Your task to perform on an android device: toggle priority inbox in the gmail app Image 0: 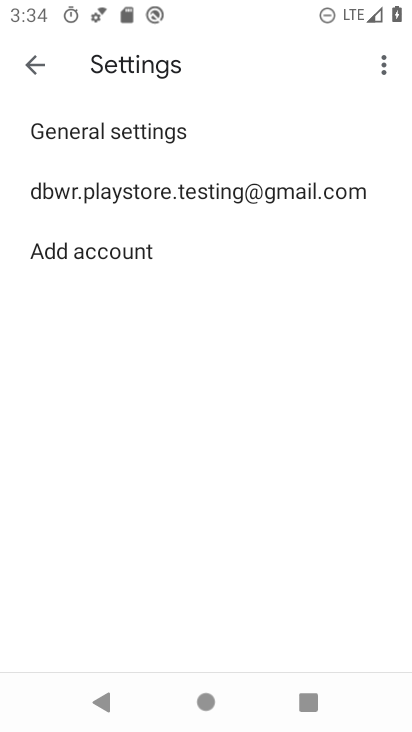
Step 0: press home button
Your task to perform on an android device: toggle priority inbox in the gmail app Image 1: 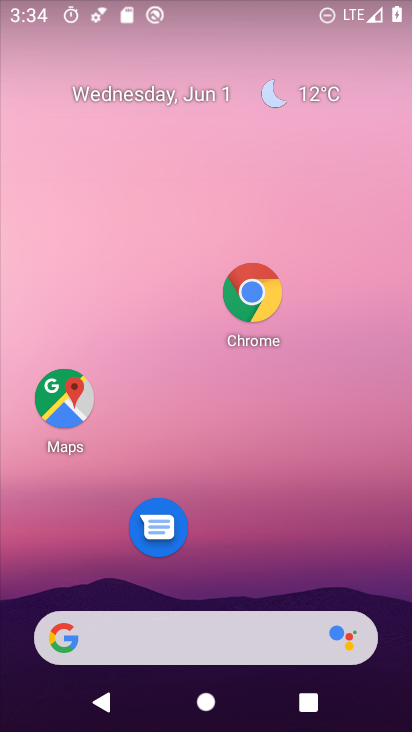
Step 1: drag from (221, 609) to (214, 381)
Your task to perform on an android device: toggle priority inbox in the gmail app Image 2: 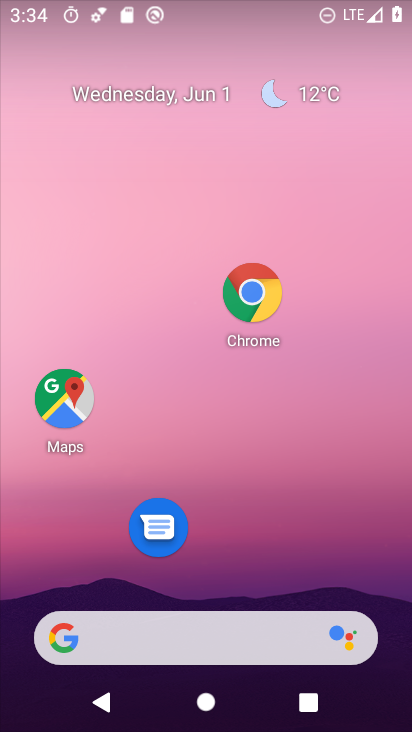
Step 2: drag from (215, 600) to (208, 364)
Your task to perform on an android device: toggle priority inbox in the gmail app Image 3: 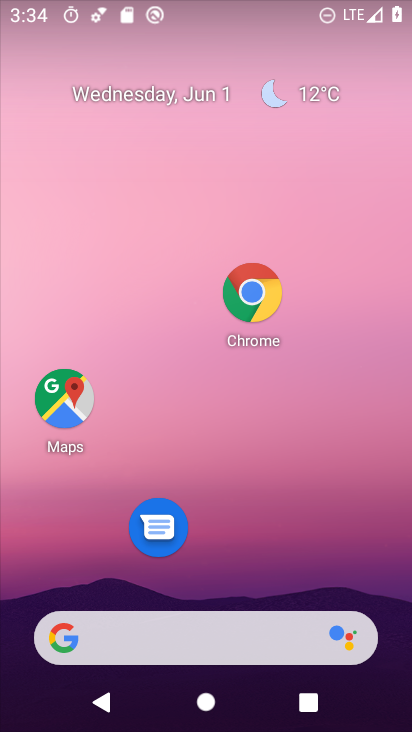
Step 3: drag from (243, 589) to (233, 366)
Your task to perform on an android device: toggle priority inbox in the gmail app Image 4: 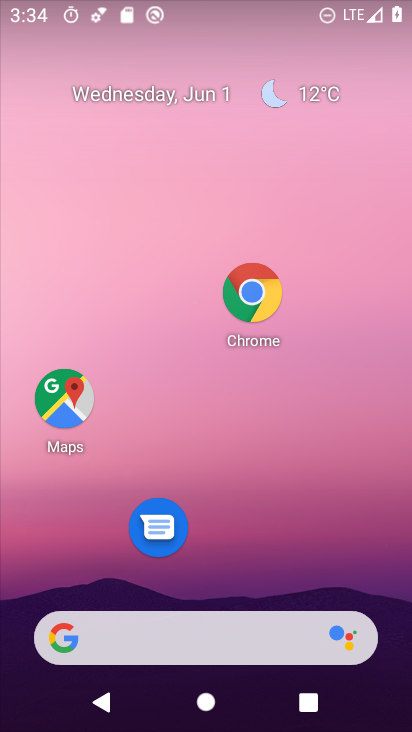
Step 4: drag from (232, 622) to (217, 297)
Your task to perform on an android device: toggle priority inbox in the gmail app Image 5: 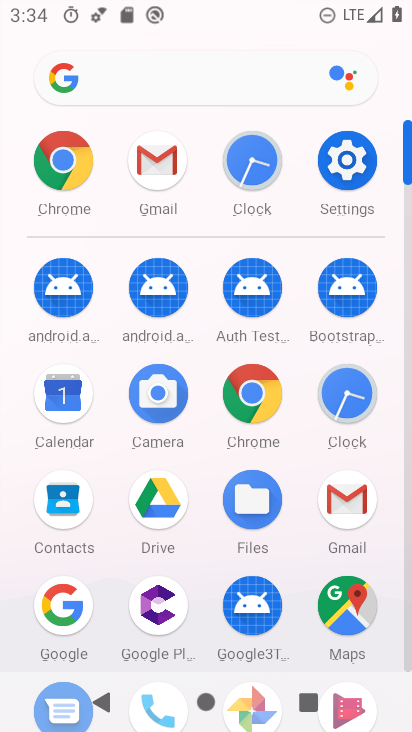
Step 5: click (336, 519)
Your task to perform on an android device: toggle priority inbox in the gmail app Image 6: 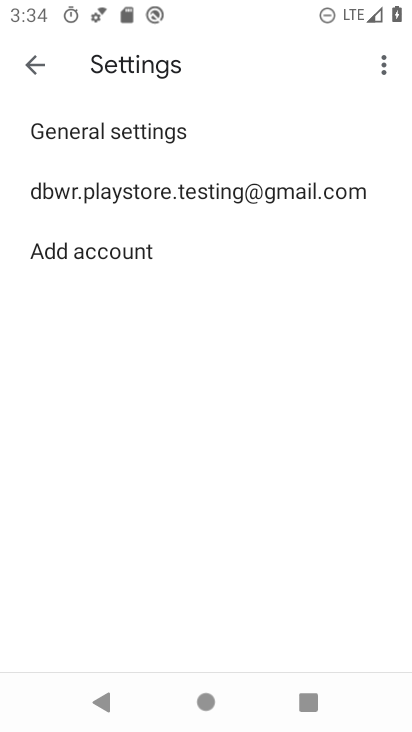
Step 6: click (148, 204)
Your task to perform on an android device: toggle priority inbox in the gmail app Image 7: 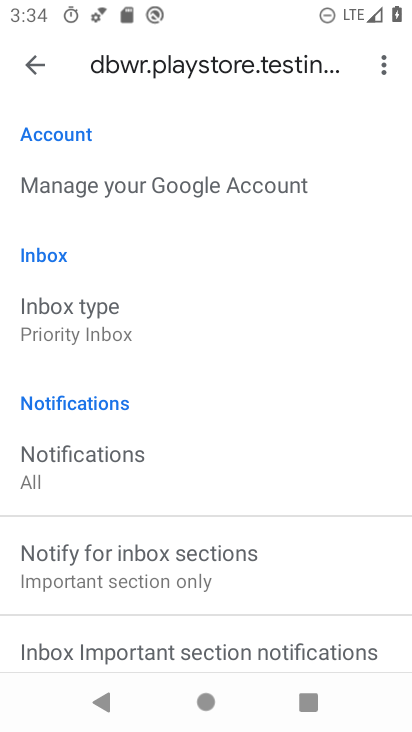
Step 7: click (111, 324)
Your task to perform on an android device: toggle priority inbox in the gmail app Image 8: 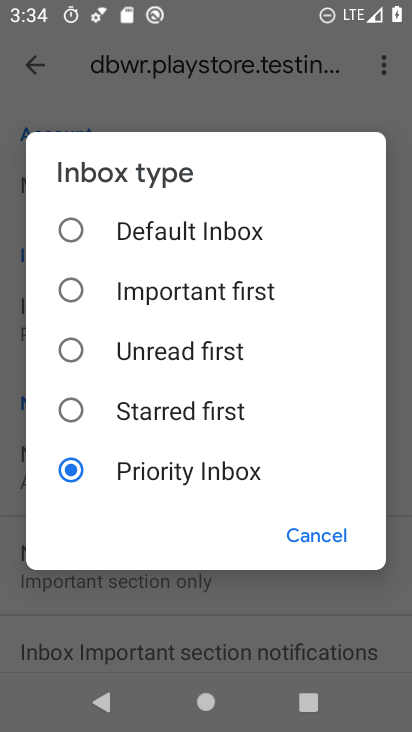
Step 8: click (152, 370)
Your task to perform on an android device: toggle priority inbox in the gmail app Image 9: 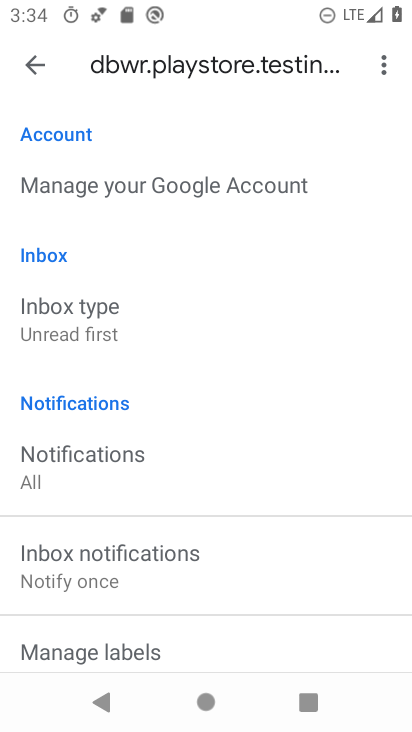
Step 9: task complete